Your task to perform on an android device: open chrome privacy settings Image 0: 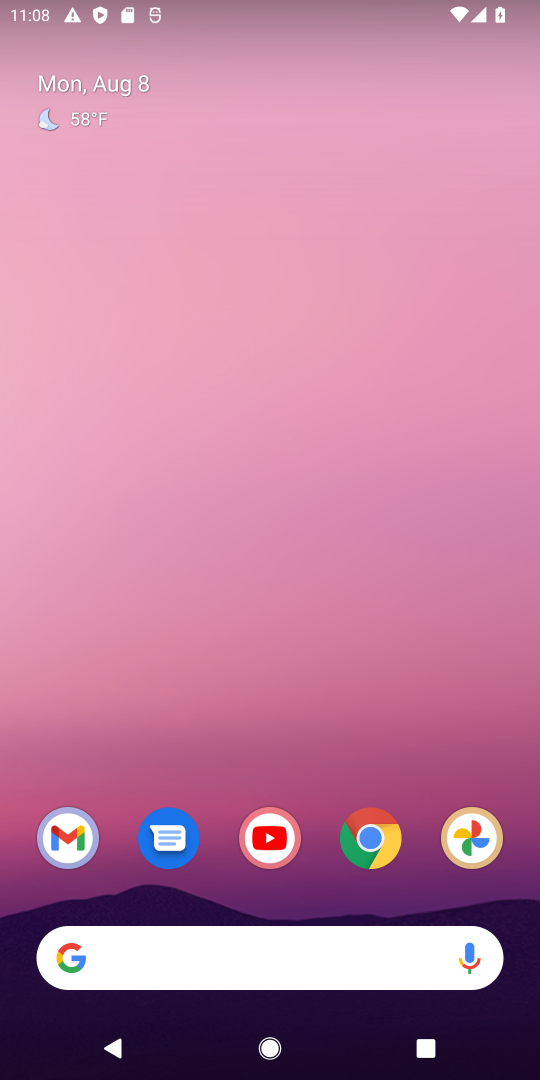
Step 0: press home button
Your task to perform on an android device: open chrome privacy settings Image 1: 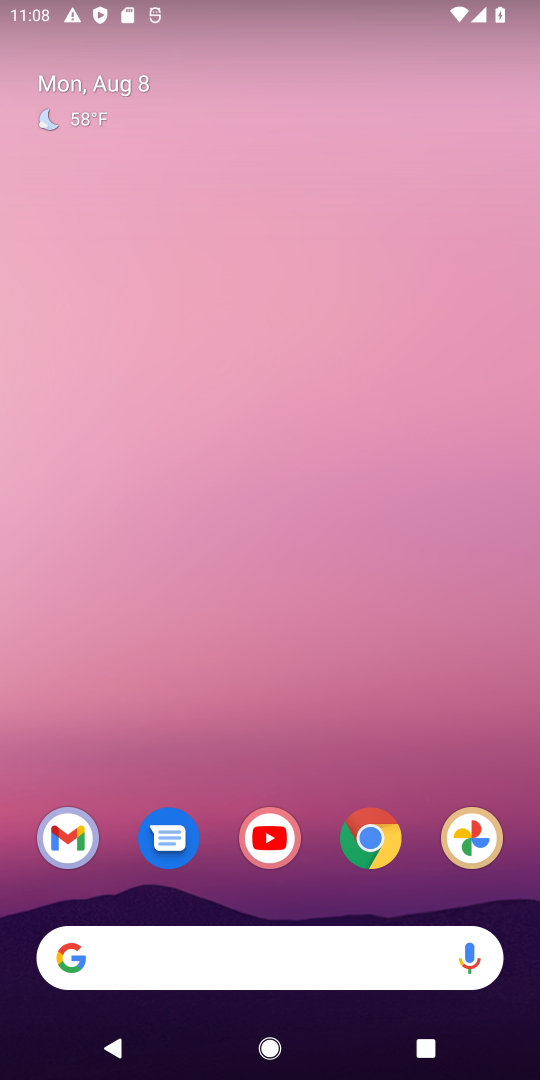
Step 1: click (373, 837)
Your task to perform on an android device: open chrome privacy settings Image 2: 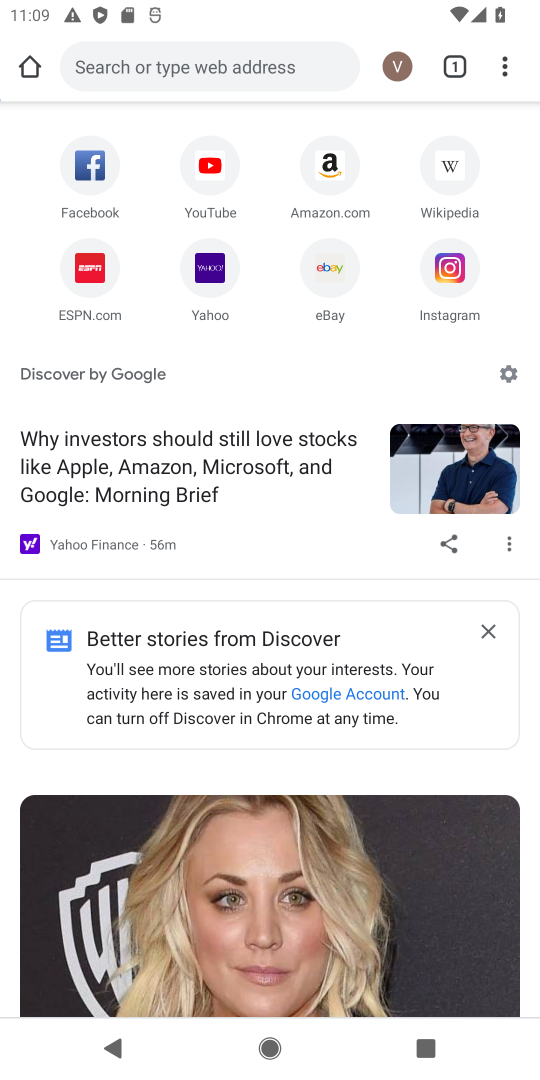
Step 2: click (507, 66)
Your task to perform on an android device: open chrome privacy settings Image 3: 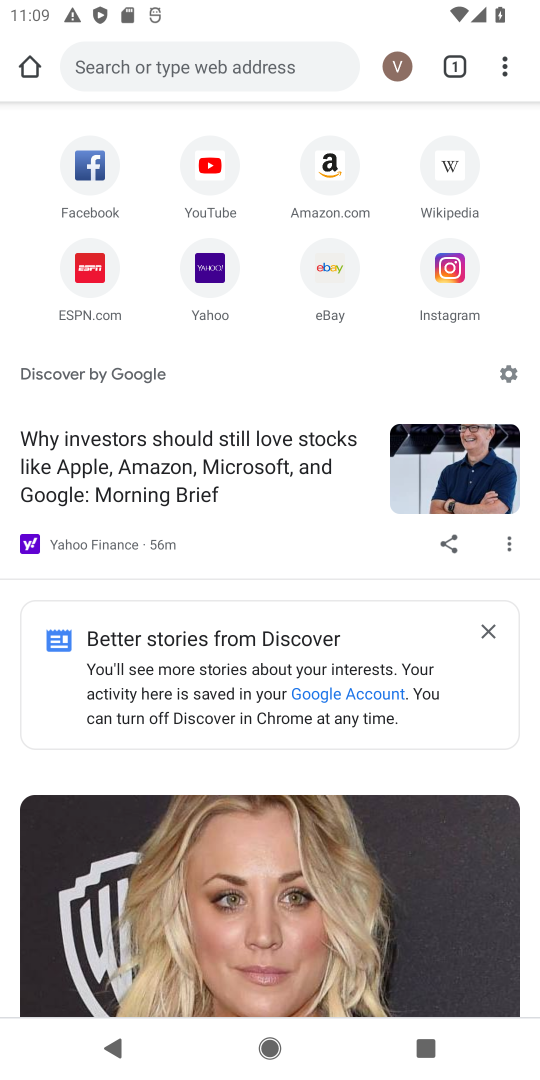
Step 3: drag from (507, 66) to (300, 670)
Your task to perform on an android device: open chrome privacy settings Image 4: 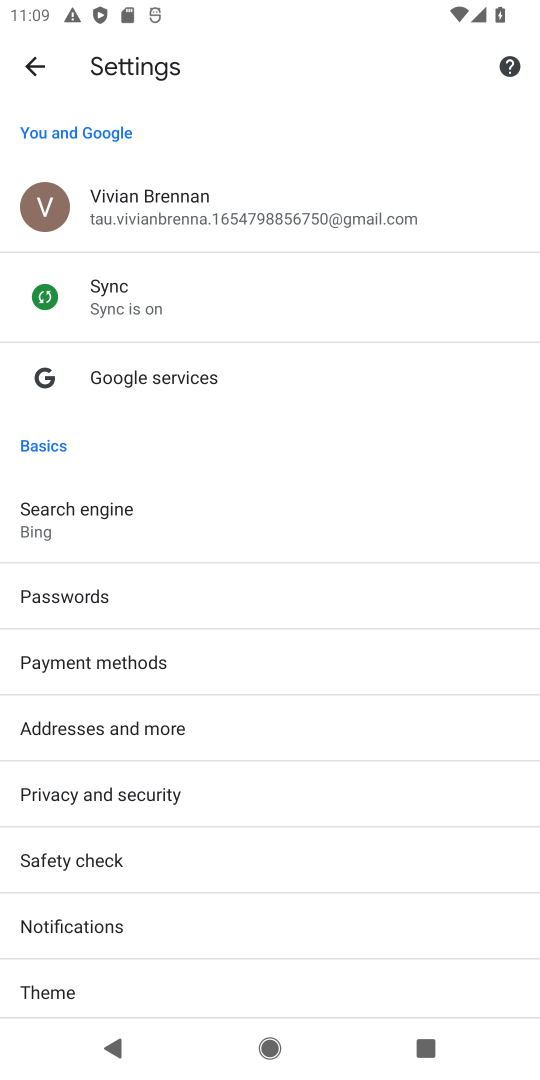
Step 4: click (84, 799)
Your task to perform on an android device: open chrome privacy settings Image 5: 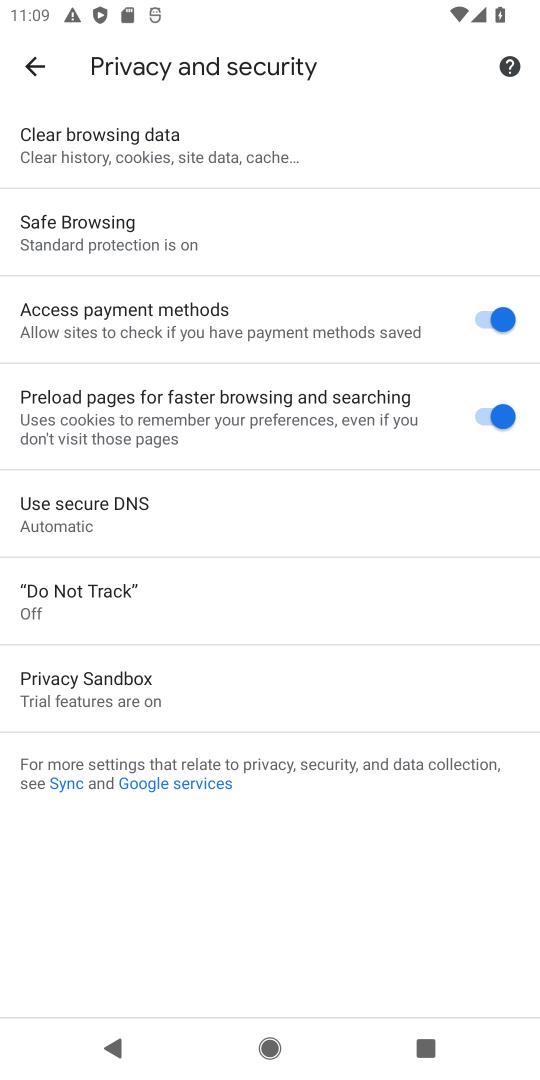
Step 5: task complete